Your task to perform on an android device: turn on notifications settings in the gmail app Image 0: 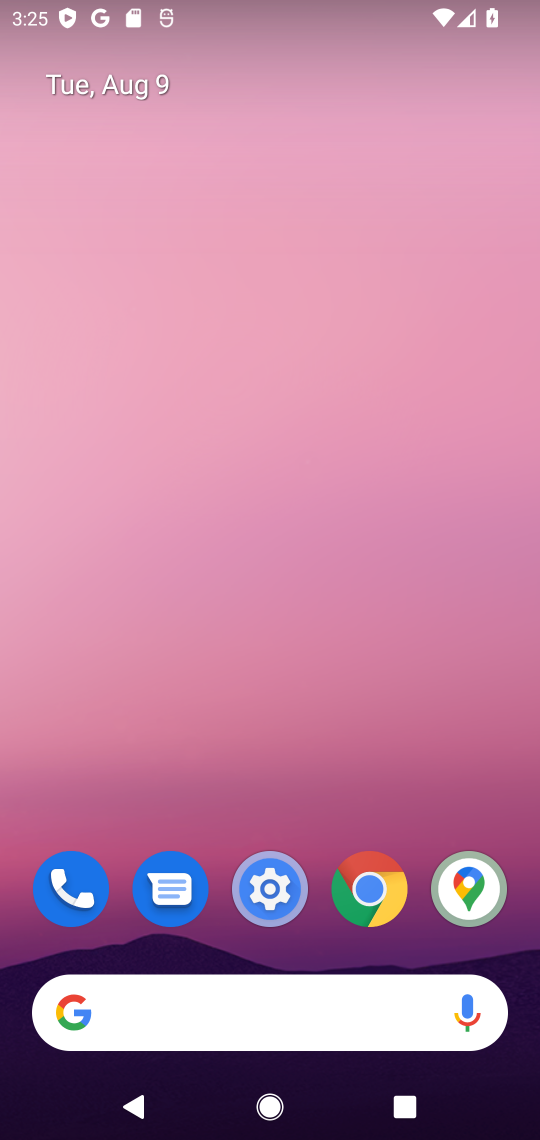
Step 0: drag from (263, 770) to (330, 7)
Your task to perform on an android device: turn on notifications settings in the gmail app Image 1: 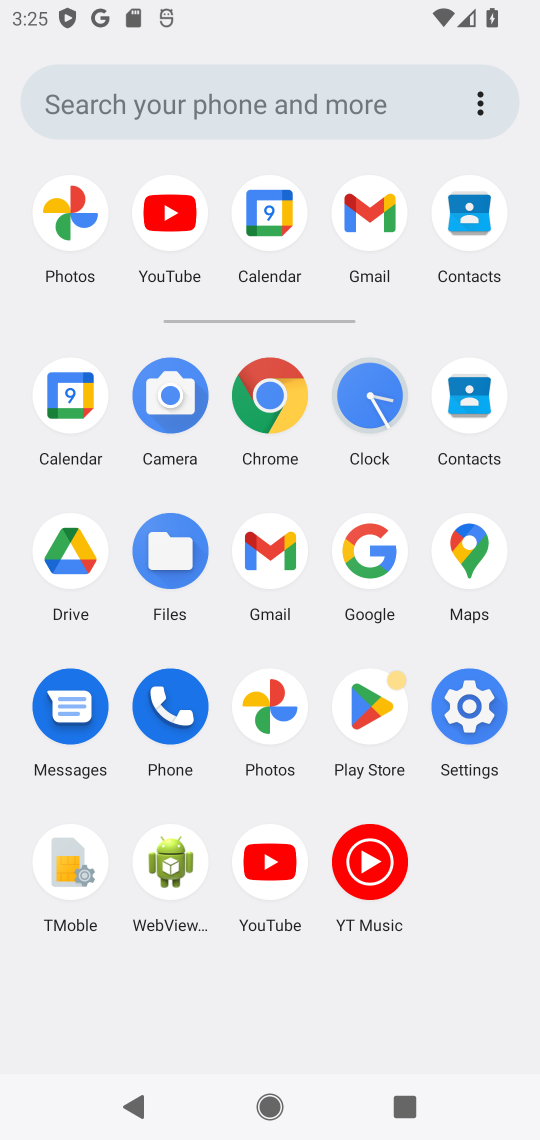
Step 1: click (361, 216)
Your task to perform on an android device: turn on notifications settings in the gmail app Image 2: 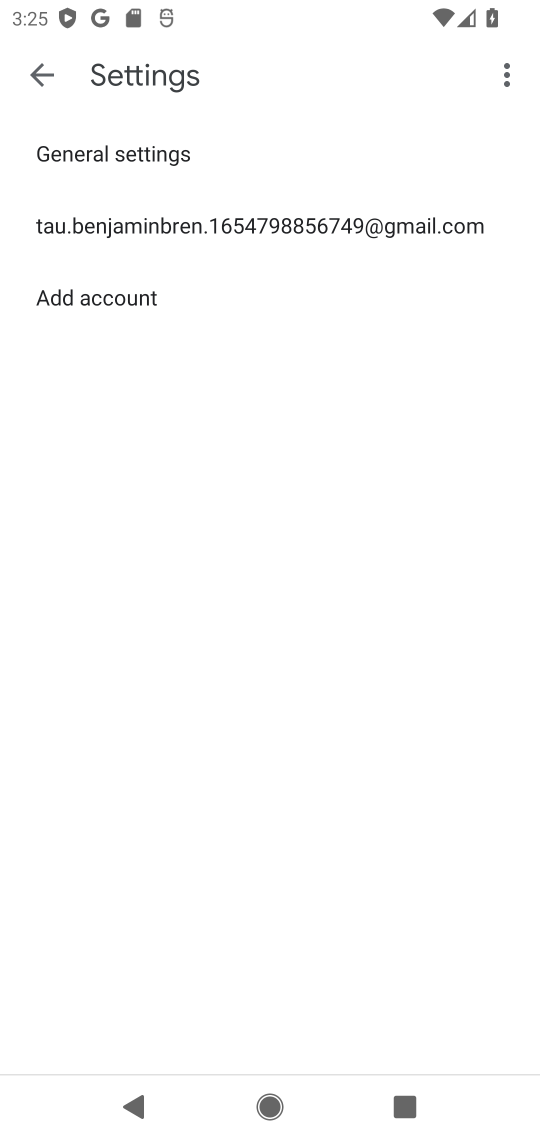
Step 2: click (361, 216)
Your task to perform on an android device: turn on notifications settings in the gmail app Image 3: 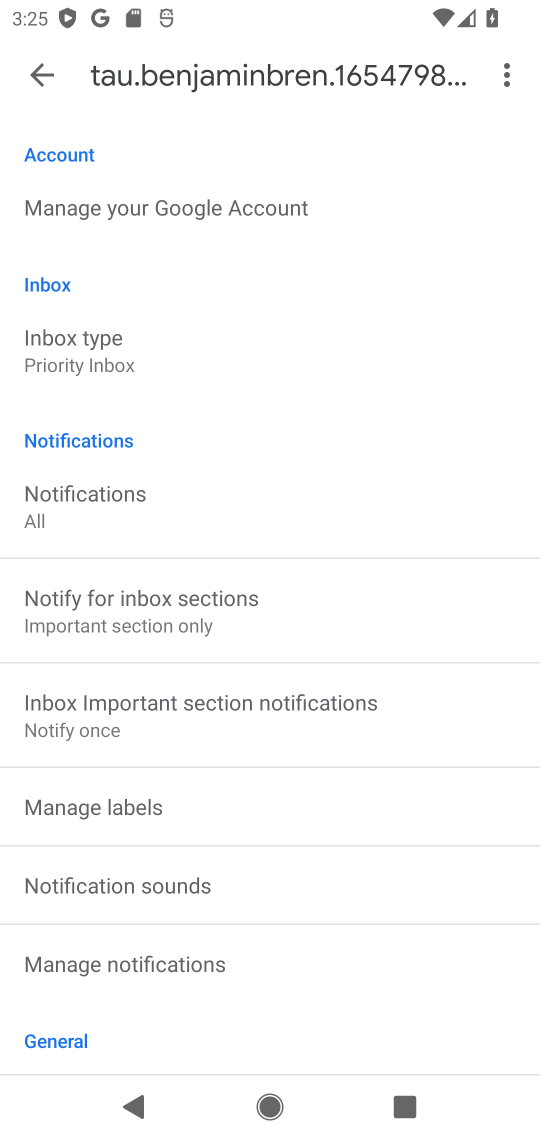
Step 3: click (242, 961)
Your task to perform on an android device: turn on notifications settings in the gmail app Image 4: 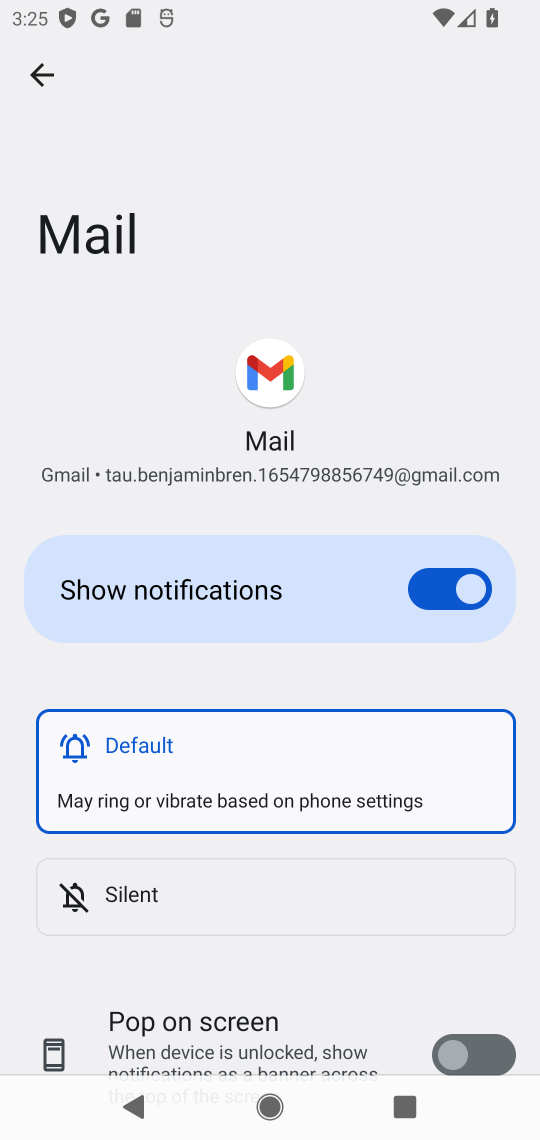
Step 4: task complete